Your task to perform on an android device: change the clock display to digital Image 0: 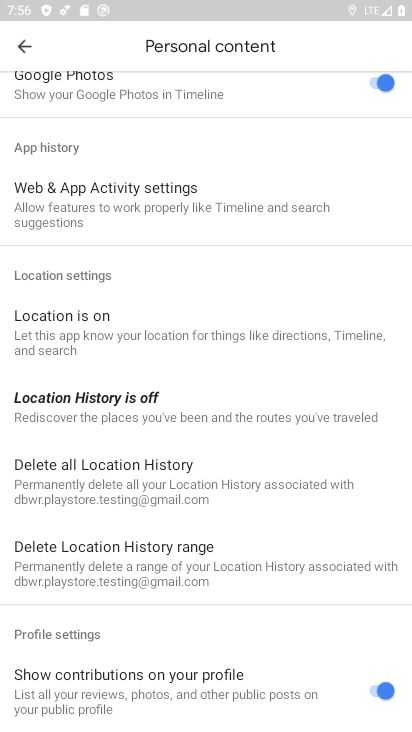
Step 0: press home button
Your task to perform on an android device: change the clock display to digital Image 1: 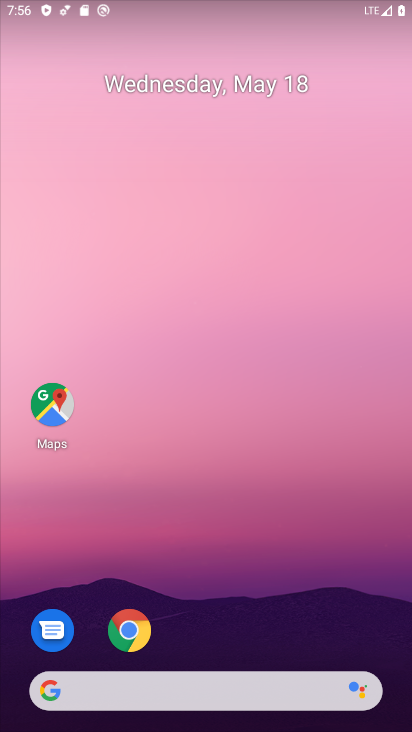
Step 1: drag from (176, 683) to (304, 156)
Your task to perform on an android device: change the clock display to digital Image 2: 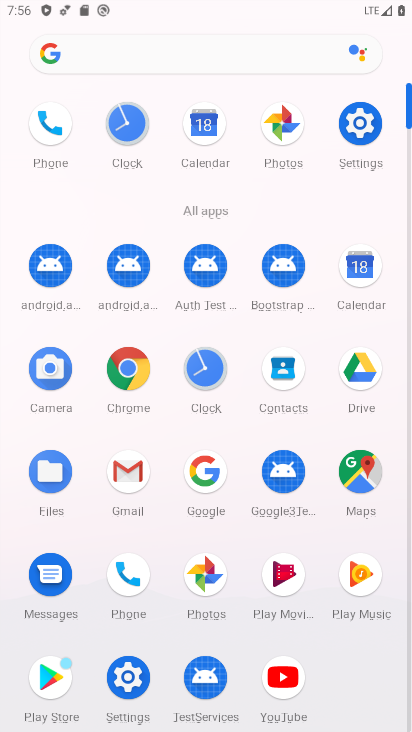
Step 2: click (136, 130)
Your task to perform on an android device: change the clock display to digital Image 3: 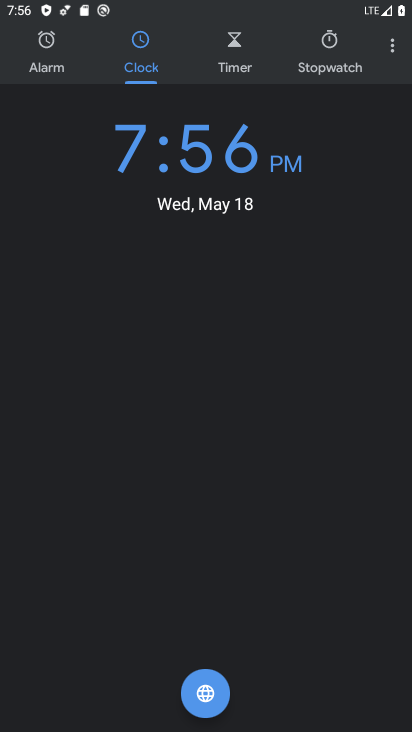
Step 3: click (394, 45)
Your task to perform on an android device: change the clock display to digital Image 4: 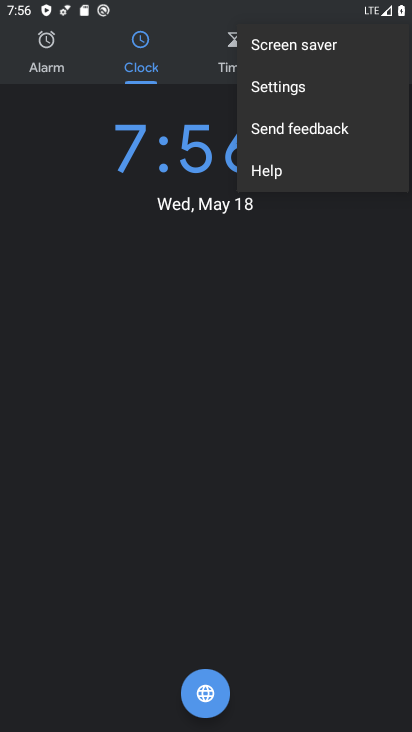
Step 4: click (313, 93)
Your task to perform on an android device: change the clock display to digital Image 5: 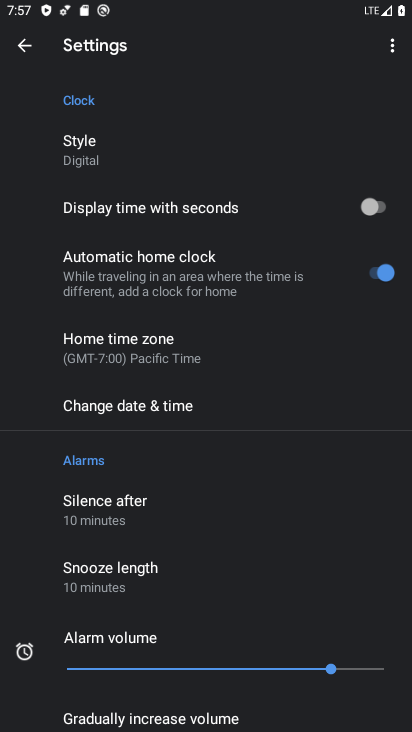
Step 5: task complete